Your task to perform on an android device: check android version Image 0: 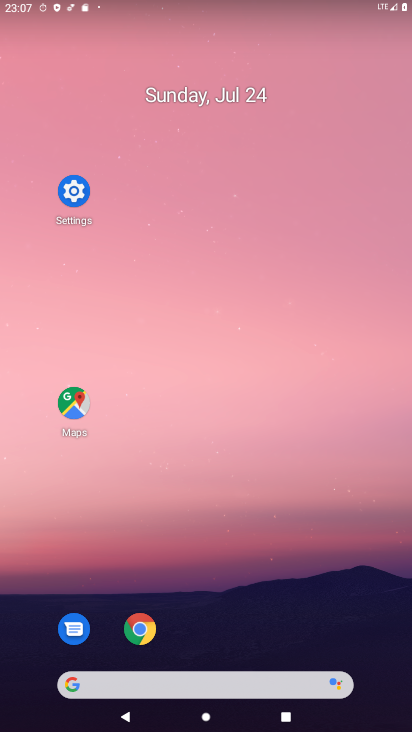
Step 0: drag from (182, 212) to (189, 108)
Your task to perform on an android device: check android version Image 1: 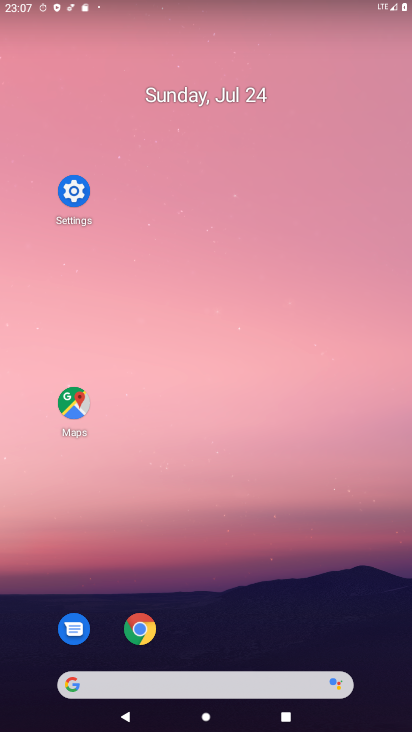
Step 1: drag from (300, 602) to (282, 52)
Your task to perform on an android device: check android version Image 2: 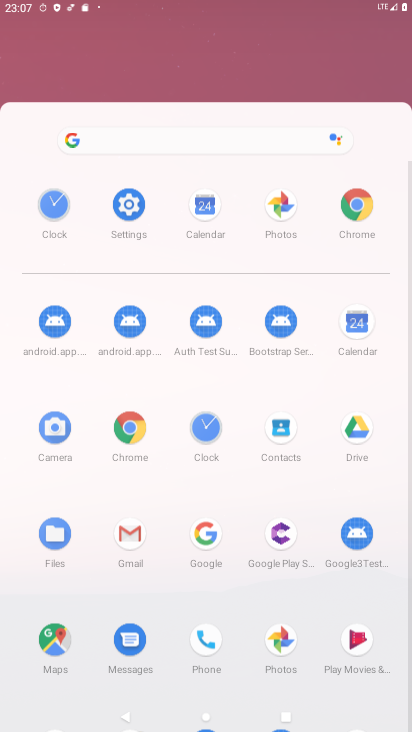
Step 2: drag from (277, 565) to (252, 29)
Your task to perform on an android device: check android version Image 3: 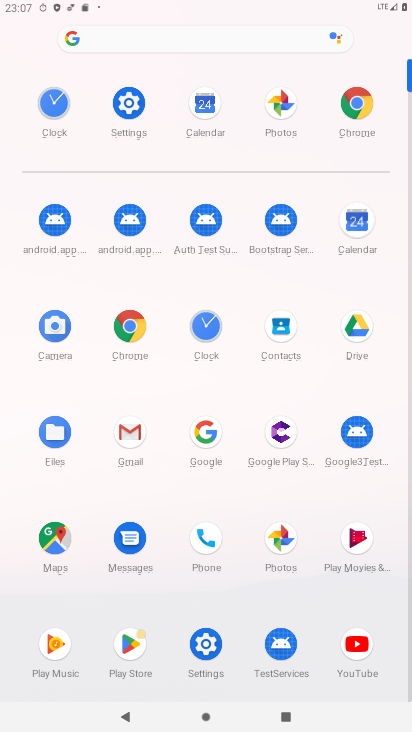
Step 3: click (131, 113)
Your task to perform on an android device: check android version Image 4: 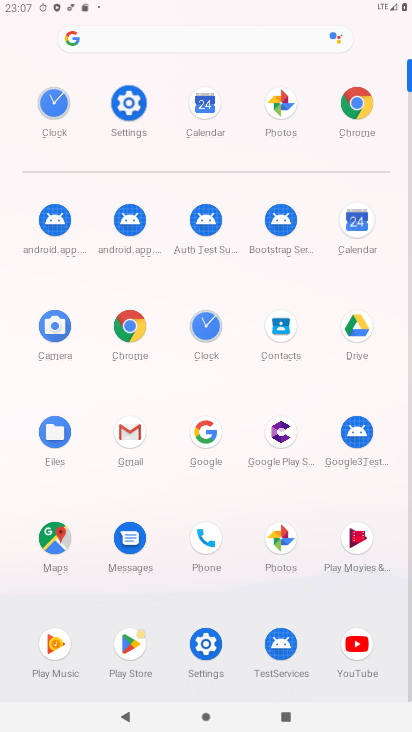
Step 4: click (130, 109)
Your task to perform on an android device: check android version Image 5: 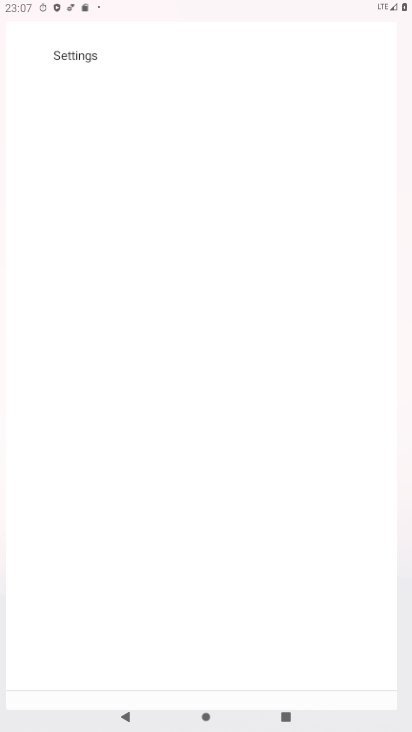
Step 5: click (130, 109)
Your task to perform on an android device: check android version Image 6: 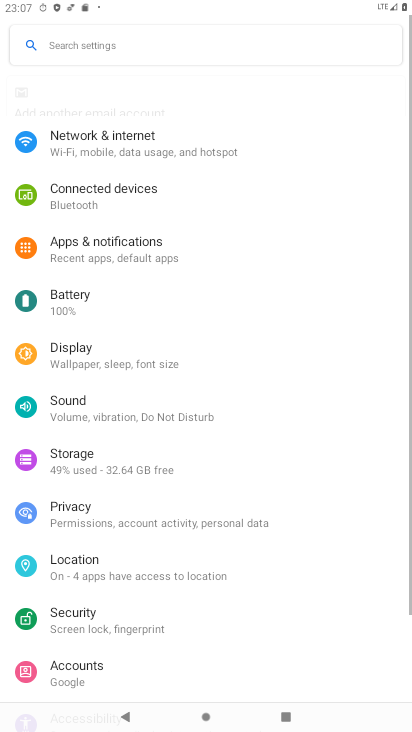
Step 6: drag from (105, 531) to (133, 22)
Your task to perform on an android device: check android version Image 7: 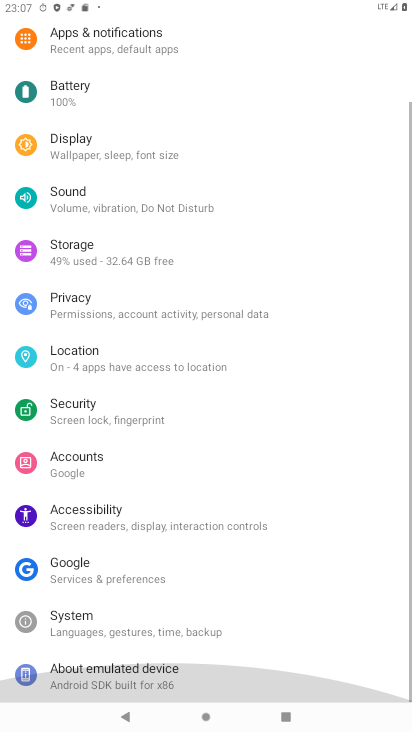
Step 7: drag from (82, 482) to (117, 50)
Your task to perform on an android device: check android version Image 8: 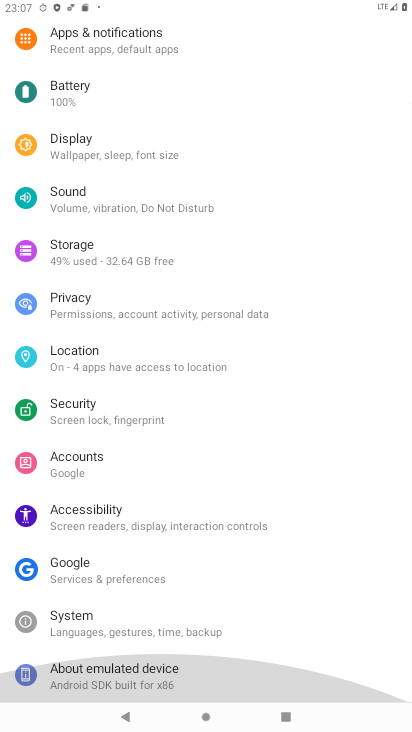
Step 8: drag from (65, 640) to (137, 174)
Your task to perform on an android device: check android version Image 9: 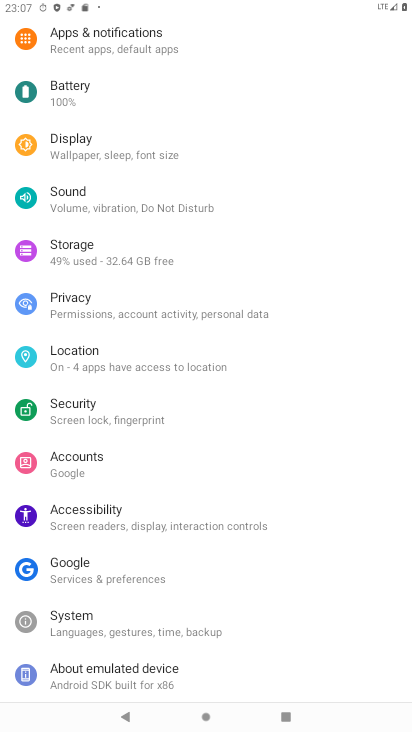
Step 9: click (99, 669)
Your task to perform on an android device: check android version Image 10: 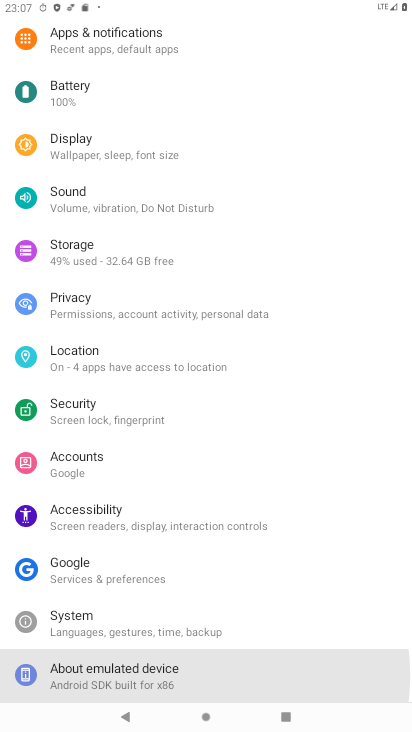
Step 10: click (100, 668)
Your task to perform on an android device: check android version Image 11: 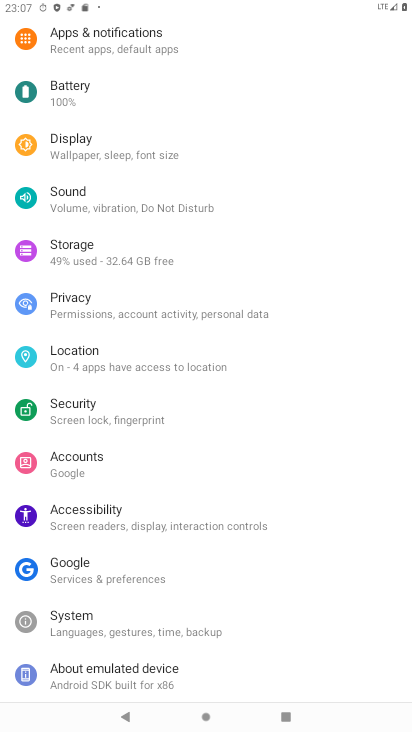
Step 11: click (101, 669)
Your task to perform on an android device: check android version Image 12: 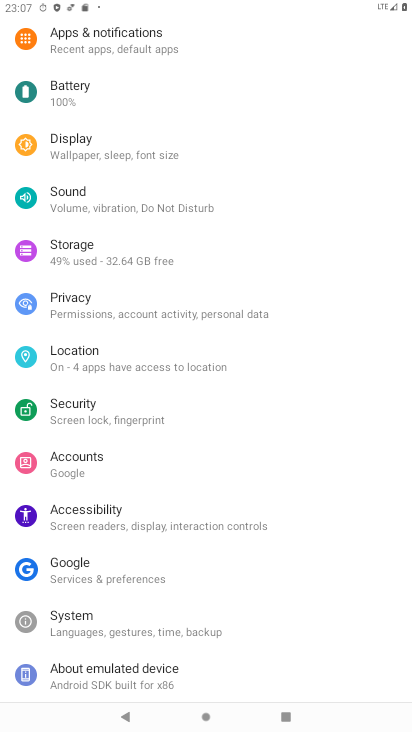
Step 12: click (100, 667)
Your task to perform on an android device: check android version Image 13: 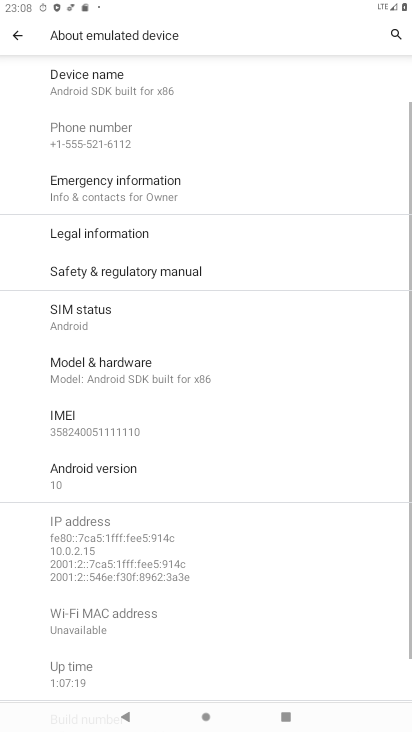
Step 13: click (70, 483)
Your task to perform on an android device: check android version Image 14: 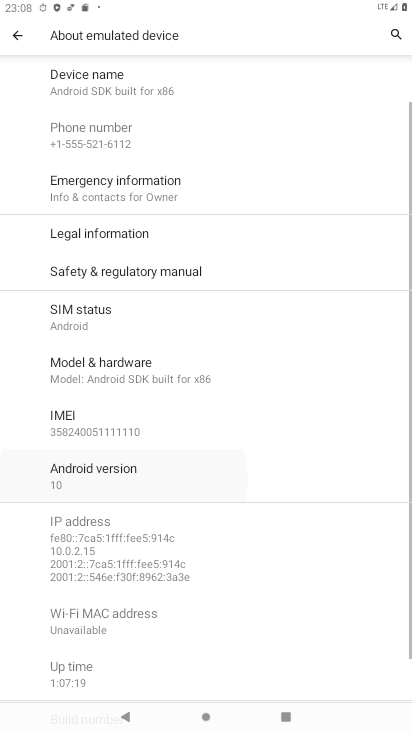
Step 14: click (71, 483)
Your task to perform on an android device: check android version Image 15: 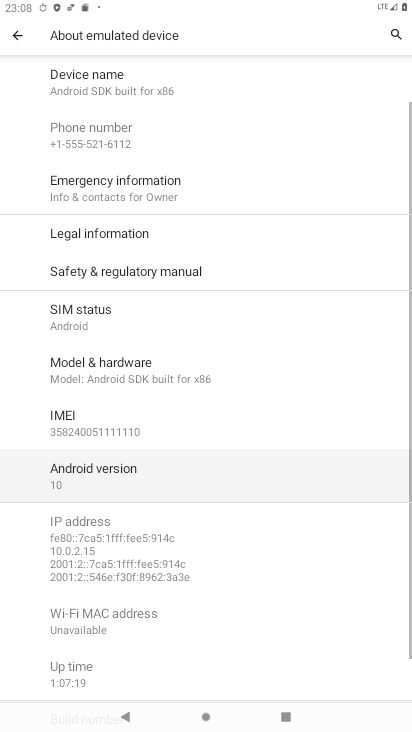
Step 15: click (76, 491)
Your task to perform on an android device: check android version Image 16: 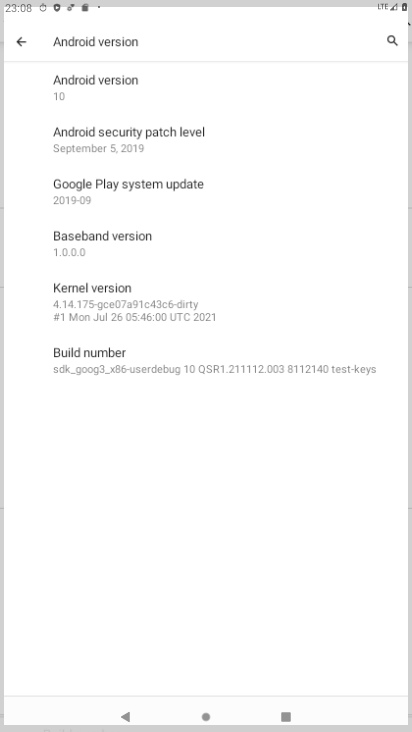
Step 16: click (74, 491)
Your task to perform on an android device: check android version Image 17: 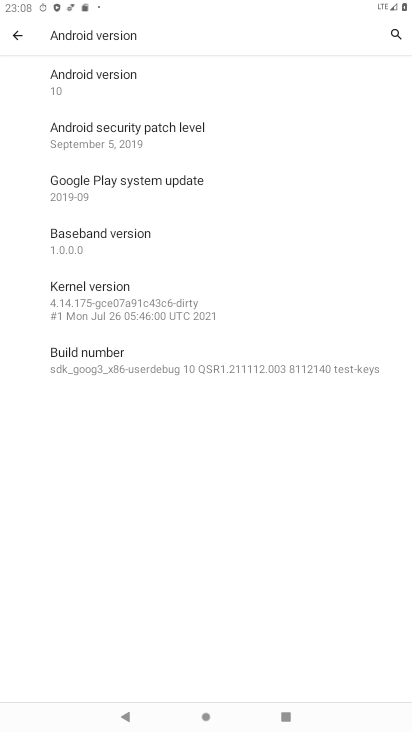
Step 17: task complete